Your task to perform on an android device: turn off improve location accuracy Image 0: 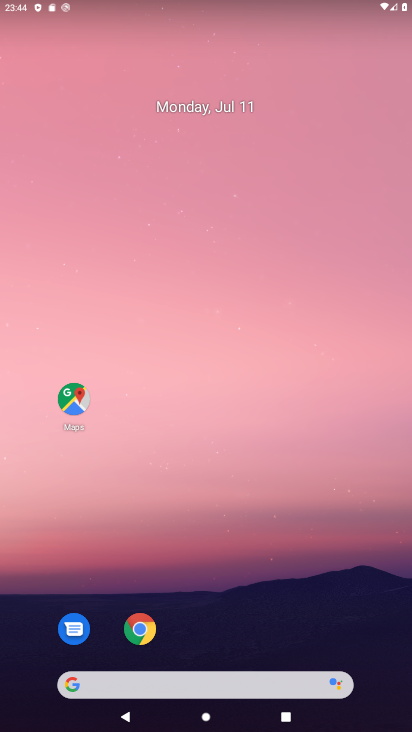
Step 0: drag from (344, 624) to (341, 115)
Your task to perform on an android device: turn off improve location accuracy Image 1: 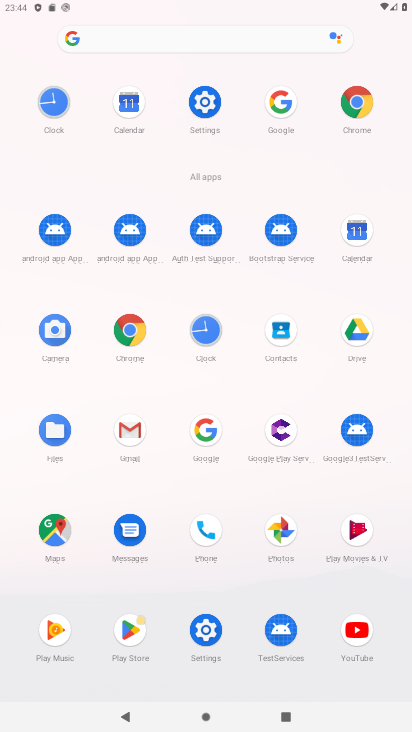
Step 1: click (210, 117)
Your task to perform on an android device: turn off improve location accuracy Image 2: 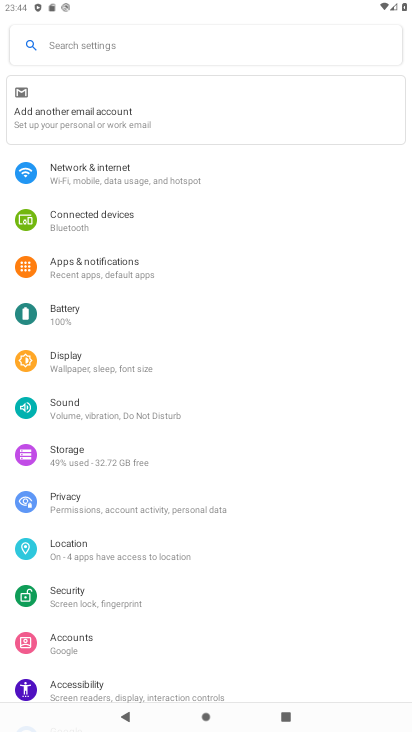
Step 2: click (127, 554)
Your task to perform on an android device: turn off improve location accuracy Image 3: 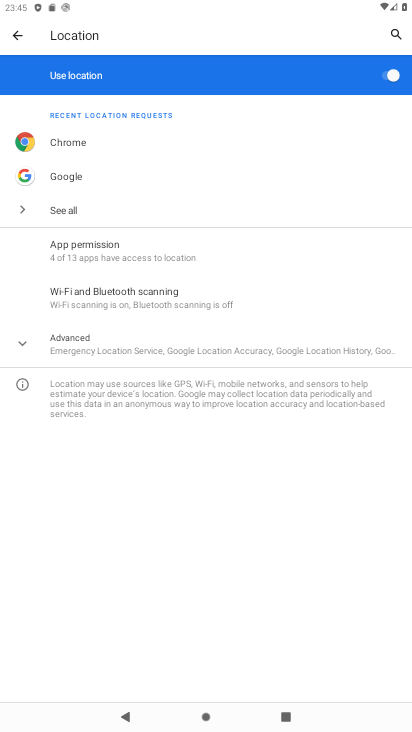
Step 3: click (116, 348)
Your task to perform on an android device: turn off improve location accuracy Image 4: 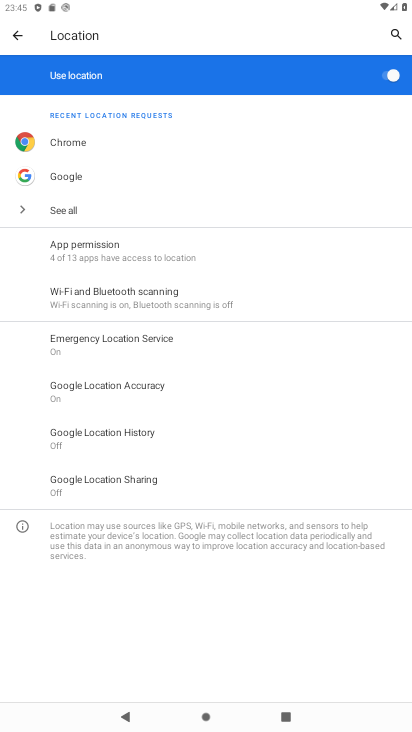
Step 4: click (137, 391)
Your task to perform on an android device: turn off improve location accuracy Image 5: 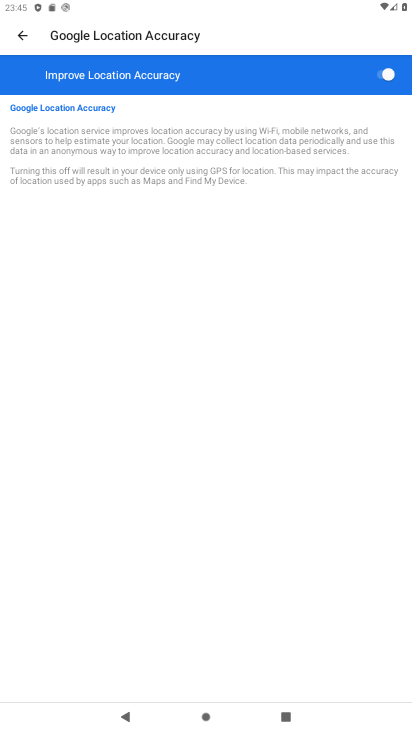
Step 5: click (387, 76)
Your task to perform on an android device: turn off improve location accuracy Image 6: 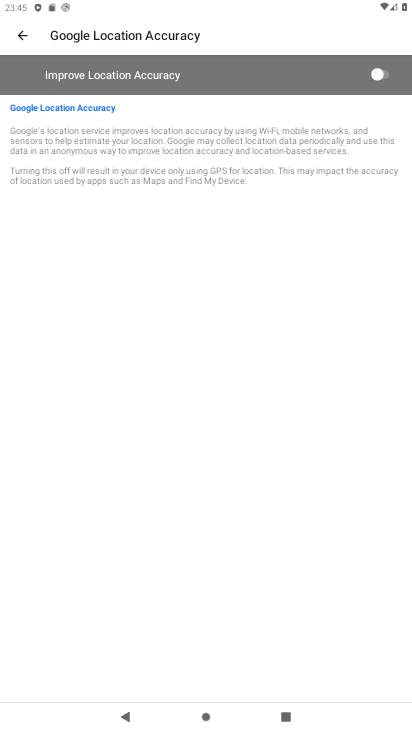
Step 6: task complete